Your task to perform on an android device: Open calendar and show me the third week of next month Image 0: 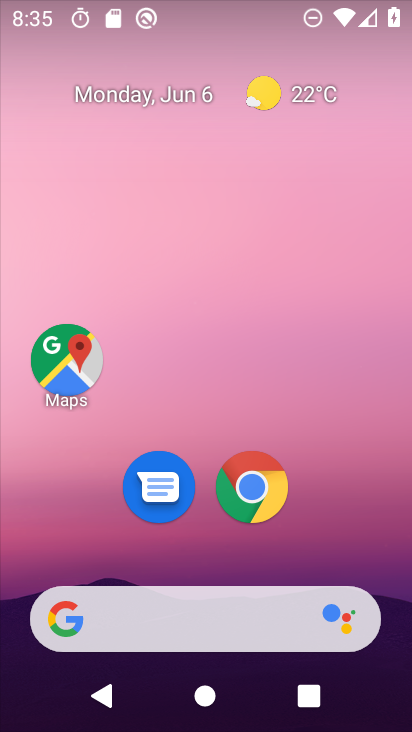
Step 0: drag from (386, 632) to (299, 60)
Your task to perform on an android device: Open calendar and show me the third week of next month Image 1: 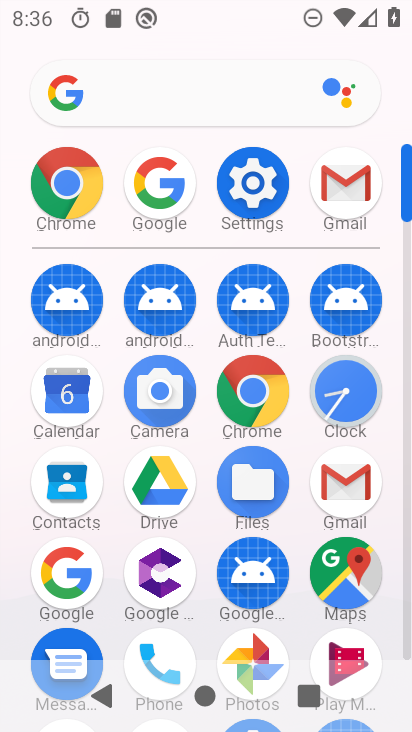
Step 1: click (56, 404)
Your task to perform on an android device: Open calendar and show me the third week of next month Image 2: 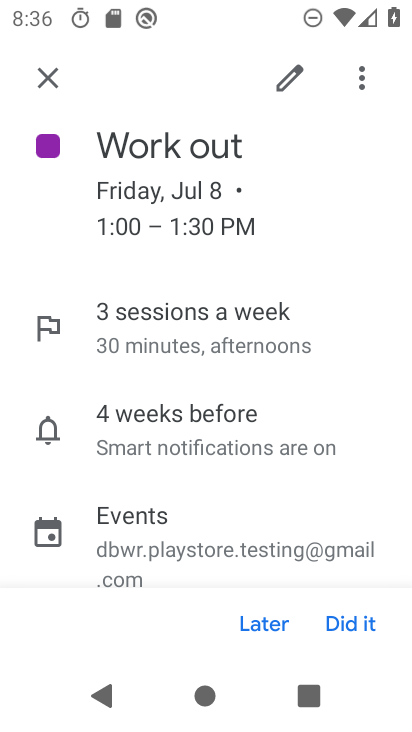
Step 2: click (44, 82)
Your task to perform on an android device: Open calendar and show me the third week of next month Image 3: 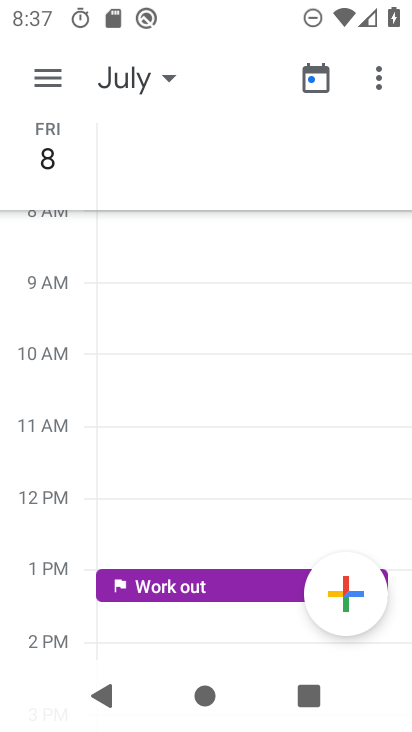
Step 3: click (108, 83)
Your task to perform on an android device: Open calendar and show me the third week of next month Image 4: 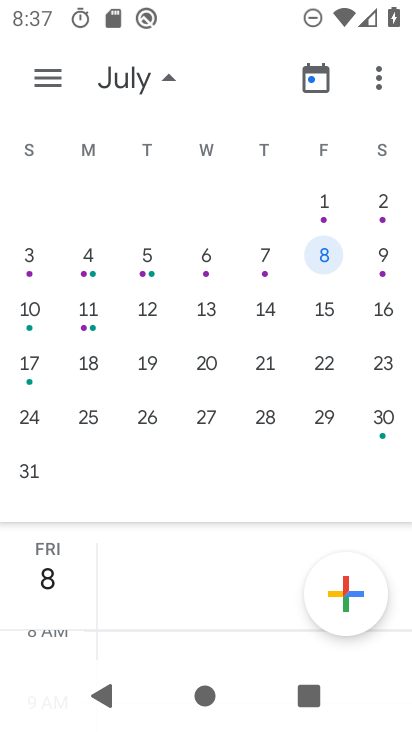
Step 4: drag from (369, 337) to (57, 333)
Your task to perform on an android device: Open calendar and show me the third week of next month Image 5: 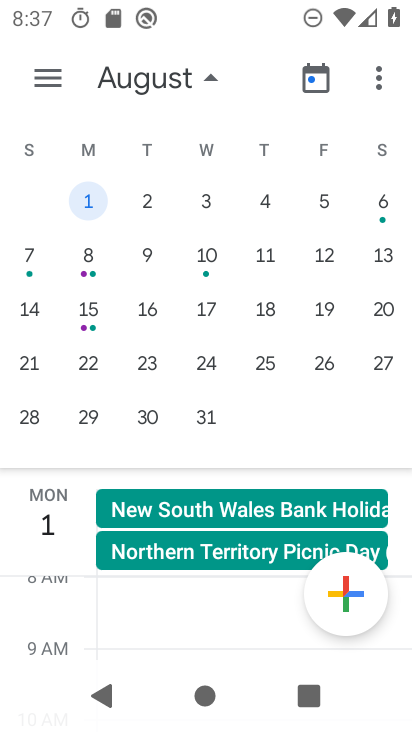
Step 5: click (203, 363)
Your task to perform on an android device: Open calendar and show me the third week of next month Image 6: 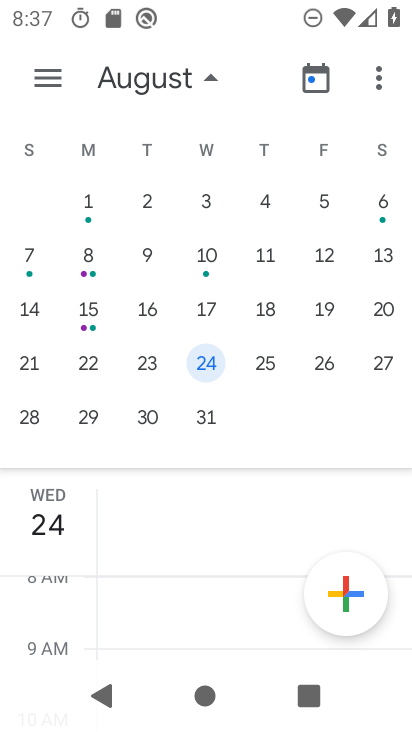
Step 6: task complete